Your task to perform on an android device: make emails show in primary in the gmail app Image 0: 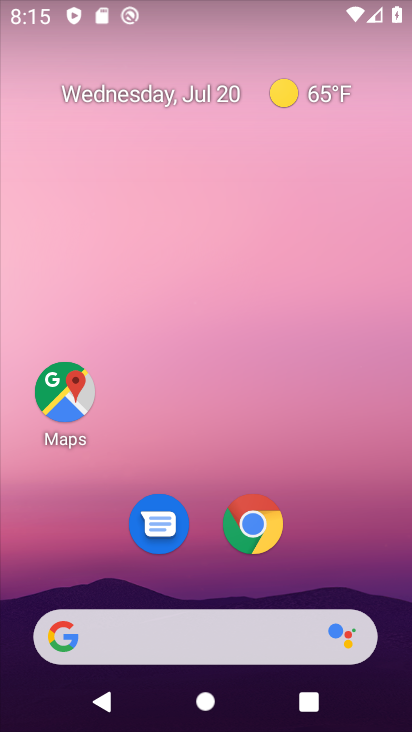
Step 0: drag from (338, 534) to (345, 37)
Your task to perform on an android device: make emails show in primary in the gmail app Image 1: 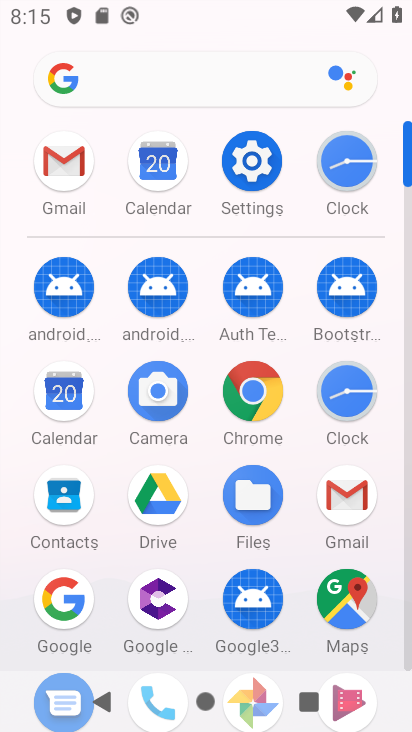
Step 1: click (73, 172)
Your task to perform on an android device: make emails show in primary in the gmail app Image 2: 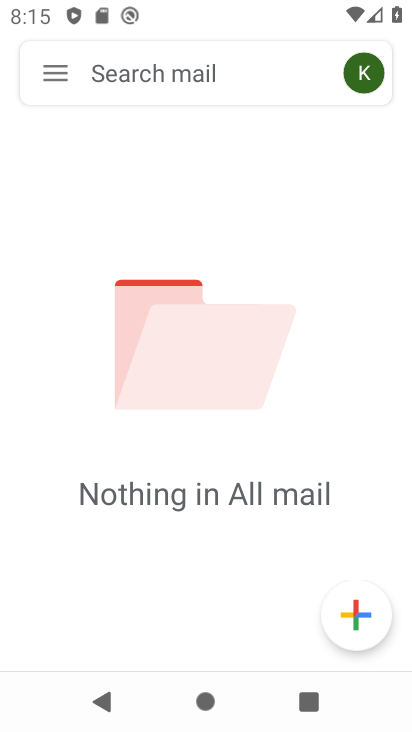
Step 2: click (53, 62)
Your task to perform on an android device: make emails show in primary in the gmail app Image 3: 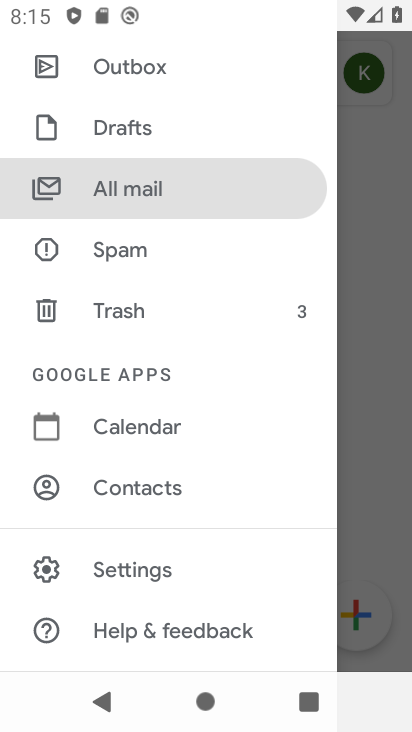
Step 3: click (118, 565)
Your task to perform on an android device: make emails show in primary in the gmail app Image 4: 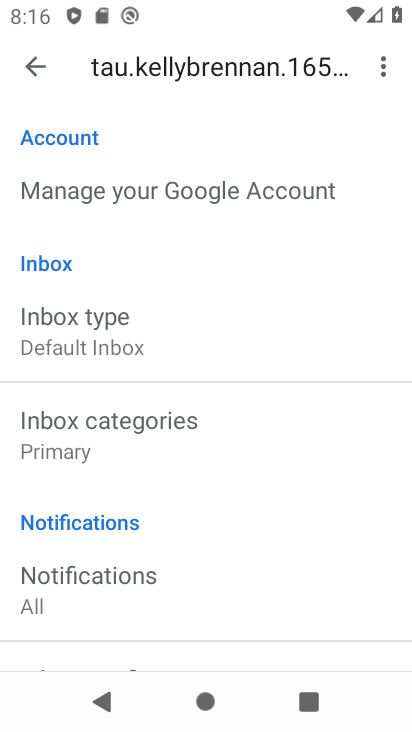
Step 4: click (112, 430)
Your task to perform on an android device: make emails show in primary in the gmail app Image 5: 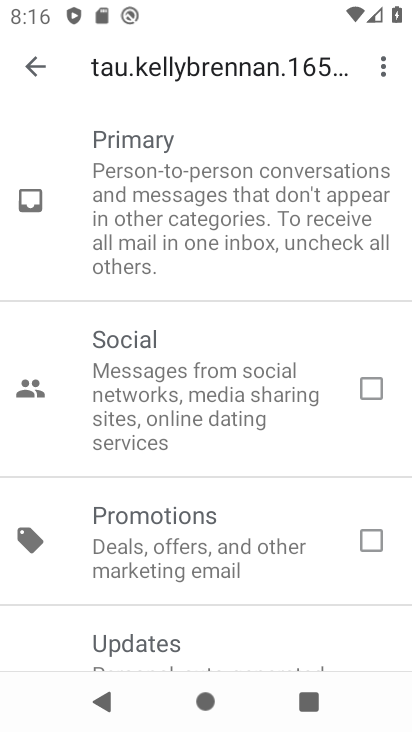
Step 5: click (39, 53)
Your task to perform on an android device: make emails show in primary in the gmail app Image 6: 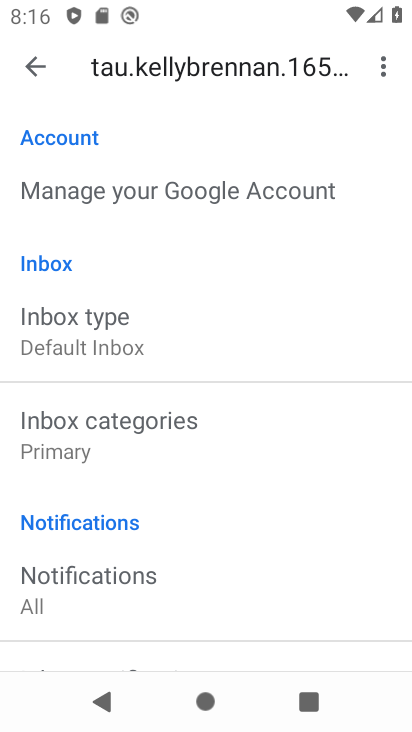
Step 6: task complete